Your task to perform on an android device: set default search engine in the chrome app Image 0: 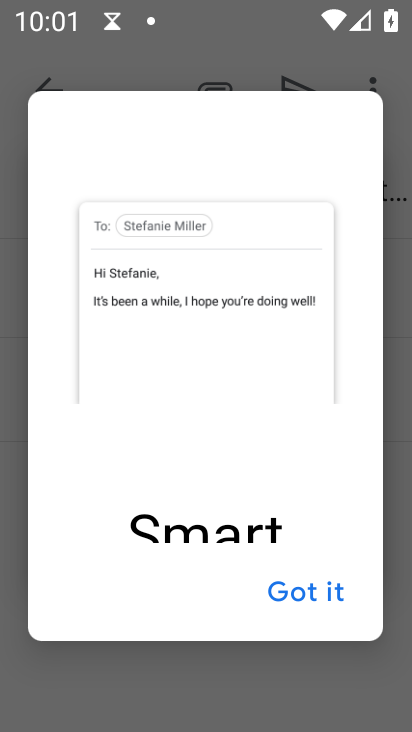
Step 0: press home button
Your task to perform on an android device: set default search engine in the chrome app Image 1: 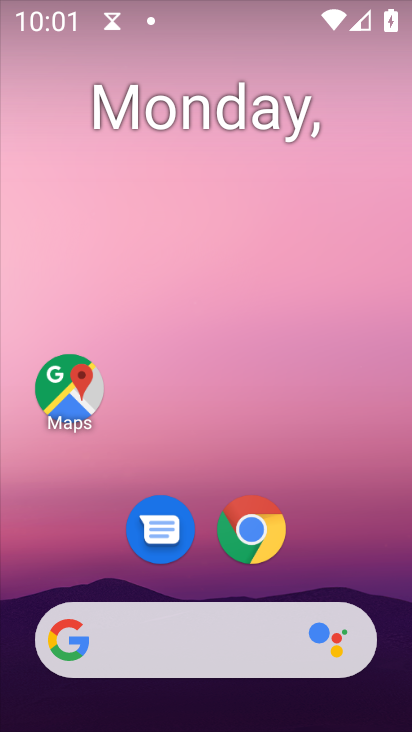
Step 1: click (253, 530)
Your task to perform on an android device: set default search engine in the chrome app Image 2: 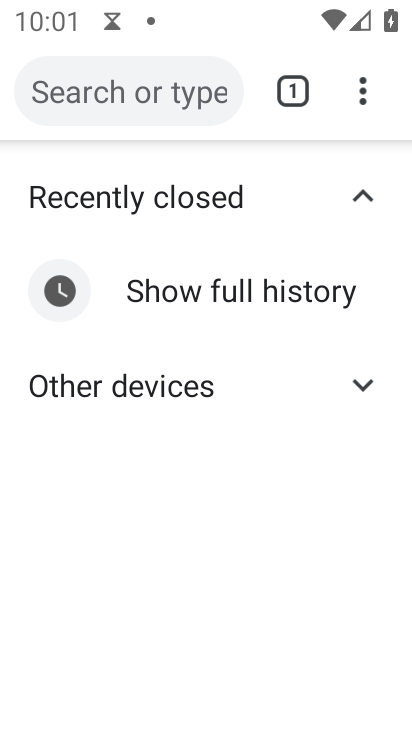
Step 2: click (365, 88)
Your task to perform on an android device: set default search engine in the chrome app Image 3: 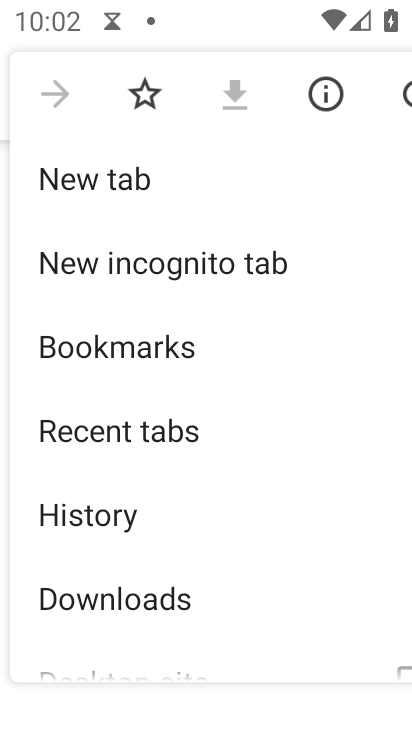
Step 3: drag from (145, 455) to (172, 366)
Your task to perform on an android device: set default search engine in the chrome app Image 4: 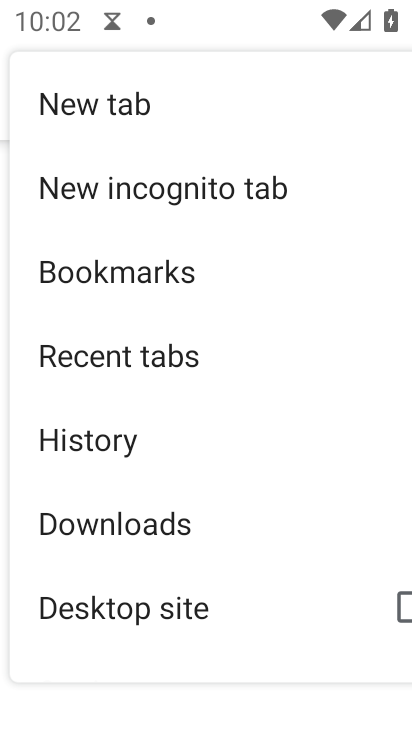
Step 4: drag from (132, 473) to (195, 388)
Your task to perform on an android device: set default search engine in the chrome app Image 5: 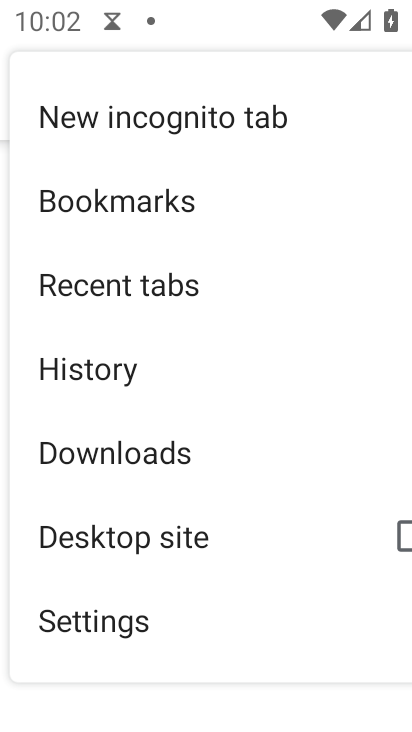
Step 5: drag from (172, 509) to (207, 398)
Your task to perform on an android device: set default search engine in the chrome app Image 6: 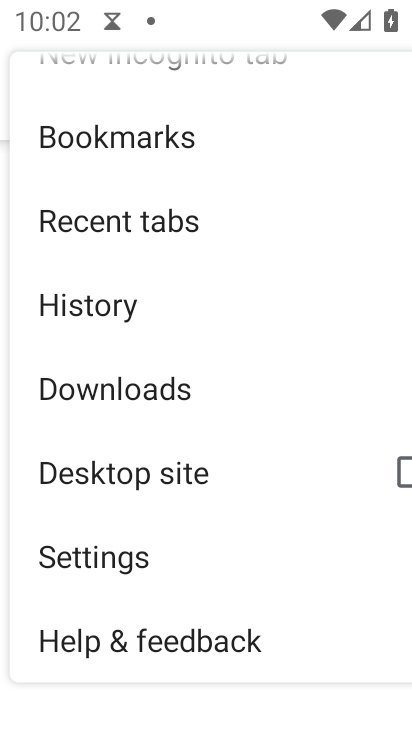
Step 6: click (119, 563)
Your task to perform on an android device: set default search engine in the chrome app Image 7: 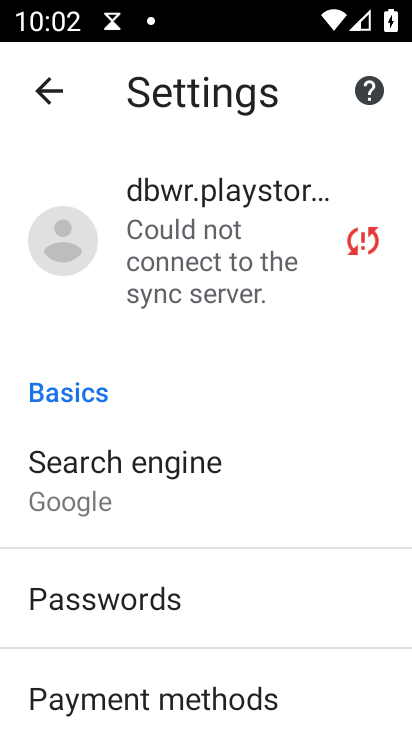
Step 7: drag from (144, 613) to (193, 519)
Your task to perform on an android device: set default search engine in the chrome app Image 8: 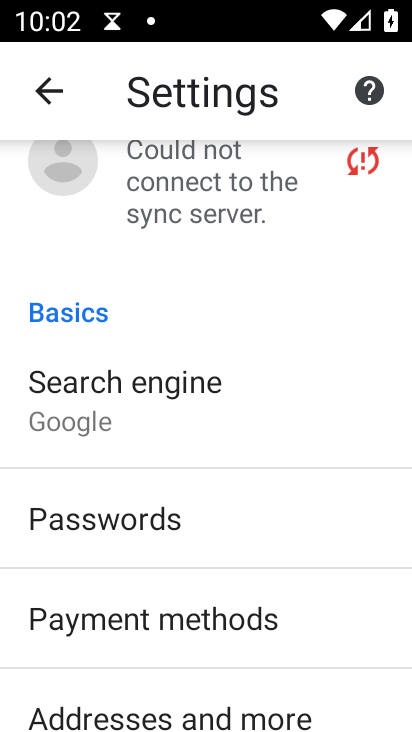
Step 8: click (150, 370)
Your task to perform on an android device: set default search engine in the chrome app Image 9: 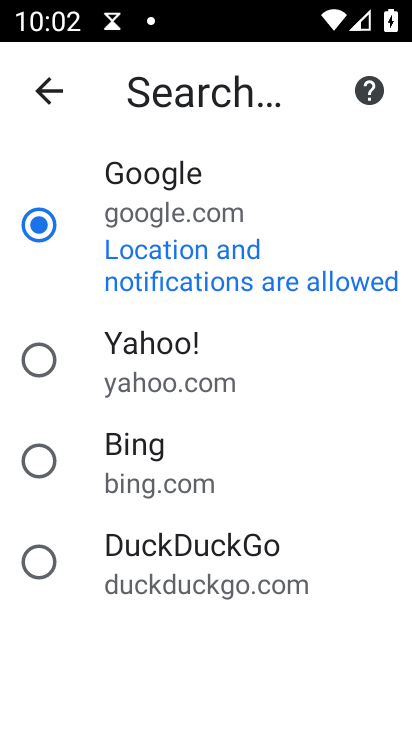
Step 9: click (50, 218)
Your task to perform on an android device: set default search engine in the chrome app Image 10: 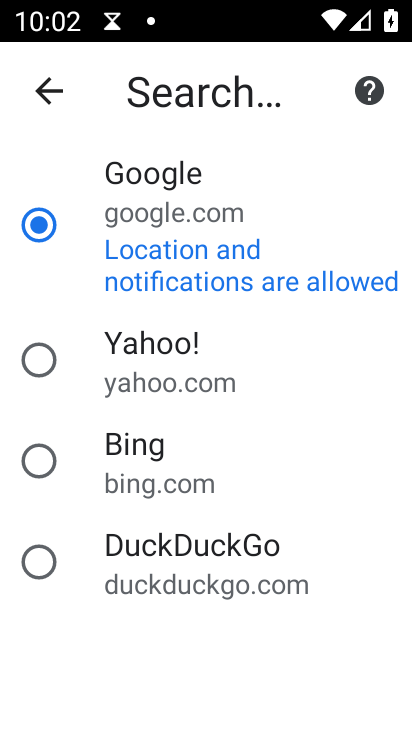
Step 10: task complete